Your task to perform on an android device: change alarm snooze length Image 0: 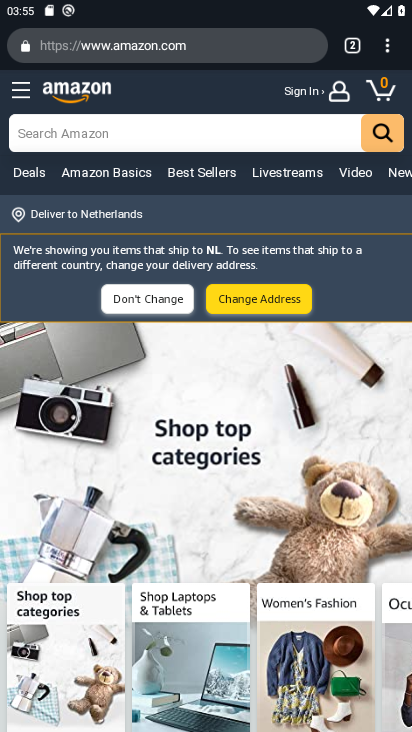
Step 0: press home button
Your task to perform on an android device: change alarm snooze length Image 1: 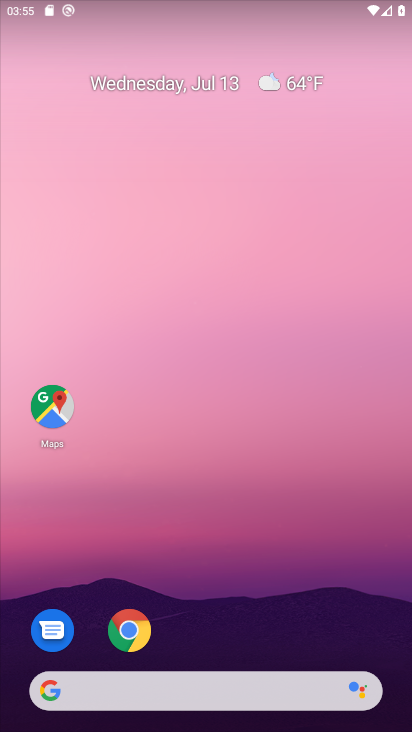
Step 1: drag from (224, 313) to (222, 91)
Your task to perform on an android device: change alarm snooze length Image 2: 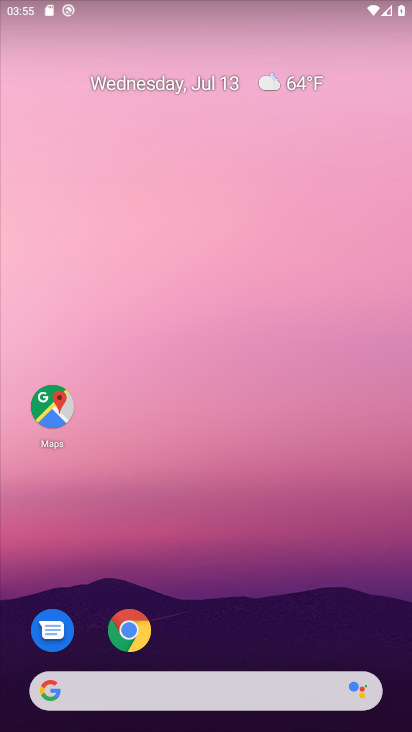
Step 2: drag from (179, 640) to (192, 13)
Your task to perform on an android device: change alarm snooze length Image 3: 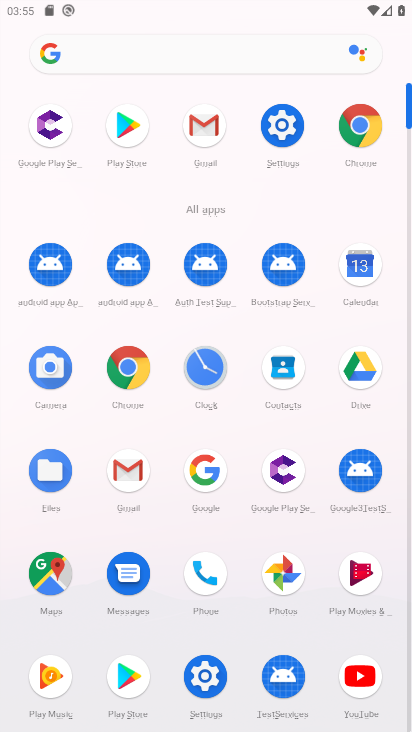
Step 3: click (185, 358)
Your task to perform on an android device: change alarm snooze length Image 4: 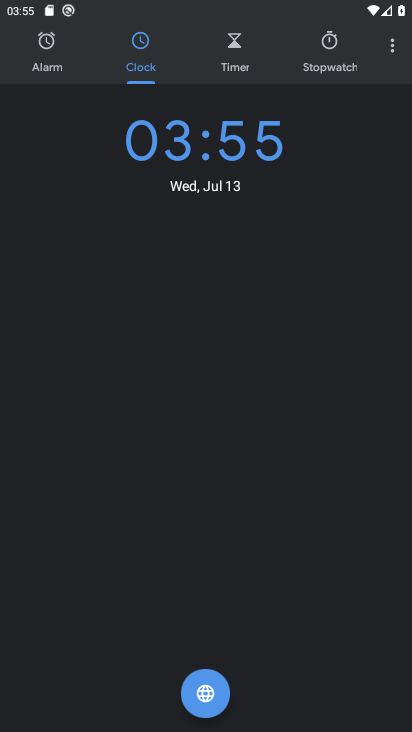
Step 4: click (405, 39)
Your task to perform on an android device: change alarm snooze length Image 5: 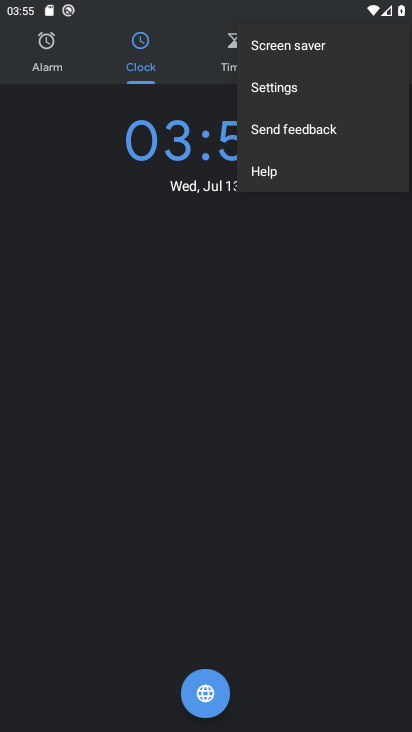
Step 5: click (300, 94)
Your task to perform on an android device: change alarm snooze length Image 6: 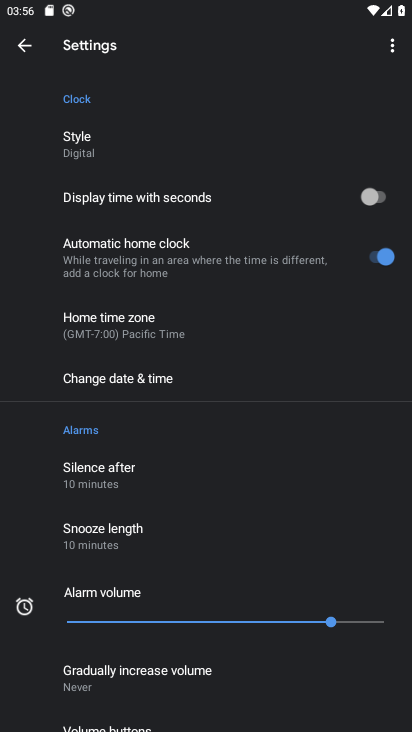
Step 6: click (134, 522)
Your task to perform on an android device: change alarm snooze length Image 7: 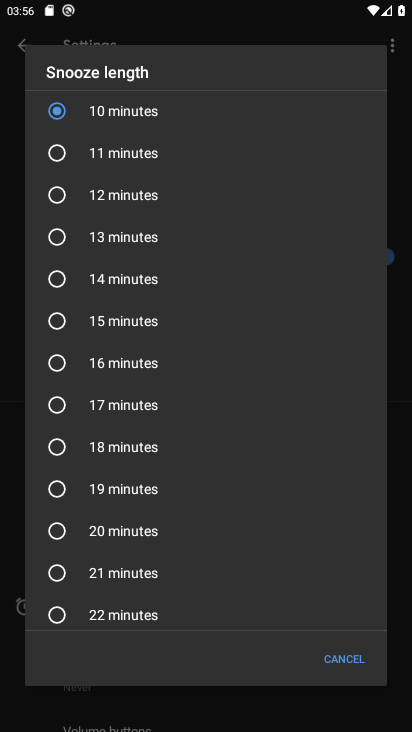
Step 7: click (102, 565)
Your task to perform on an android device: change alarm snooze length Image 8: 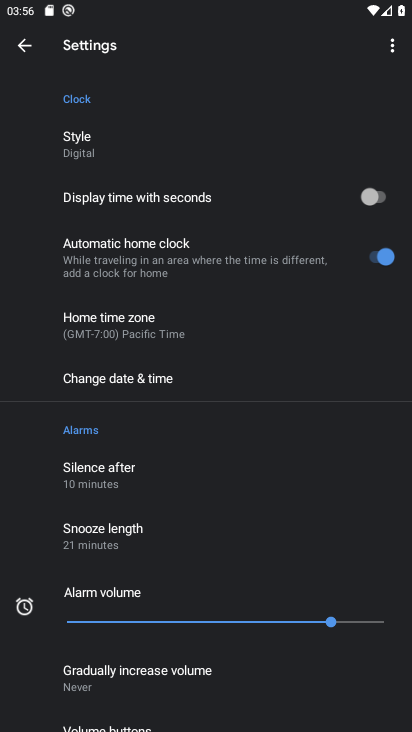
Step 8: task complete